Your task to perform on an android device: What is the news today? Image 0: 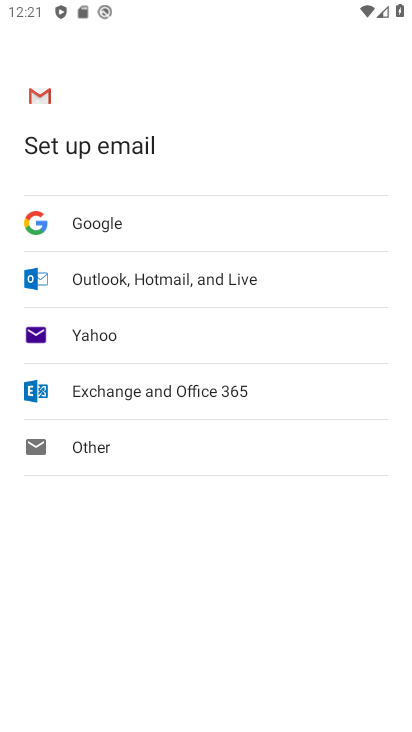
Step 0: press home button
Your task to perform on an android device: What is the news today? Image 1: 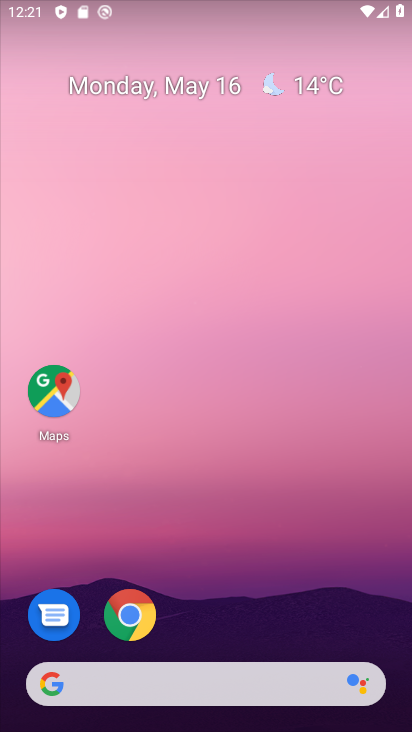
Step 1: drag from (323, 623) to (373, 131)
Your task to perform on an android device: What is the news today? Image 2: 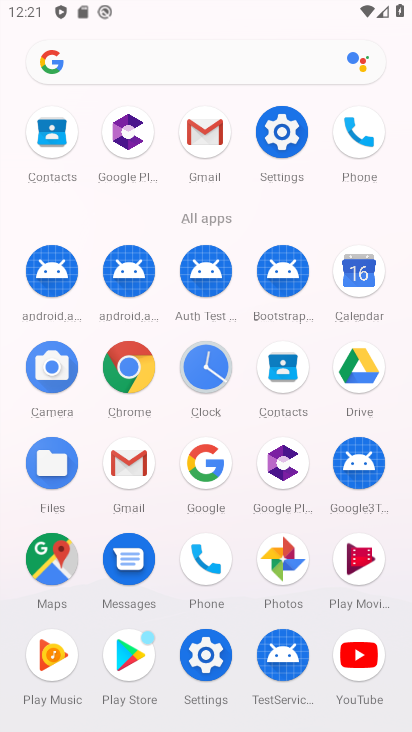
Step 2: click (135, 379)
Your task to perform on an android device: What is the news today? Image 3: 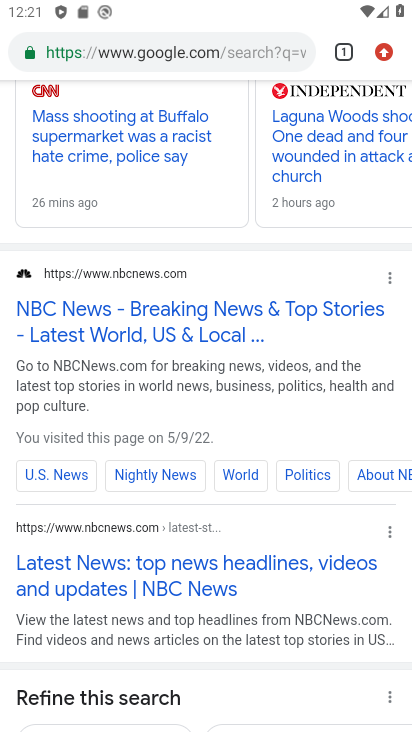
Step 3: click (137, 55)
Your task to perform on an android device: What is the news today? Image 4: 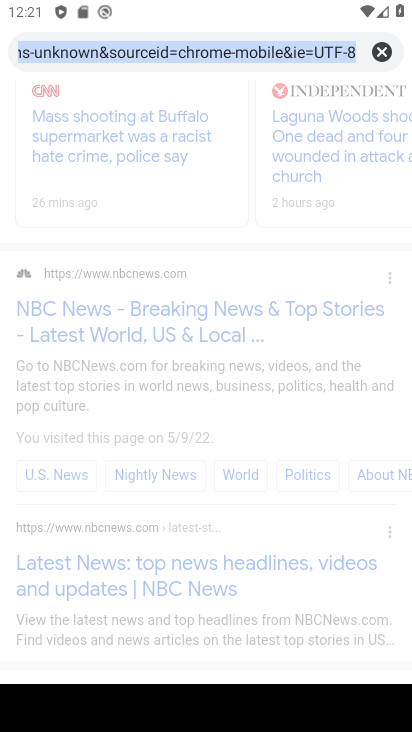
Step 4: click (380, 52)
Your task to perform on an android device: What is the news today? Image 5: 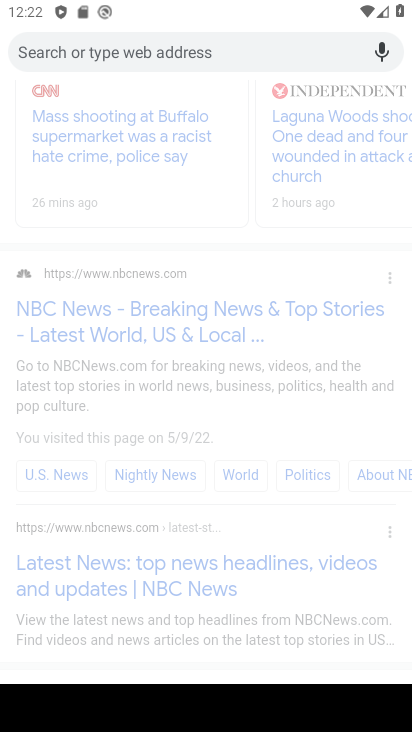
Step 5: type "what is the news today"
Your task to perform on an android device: What is the news today? Image 6: 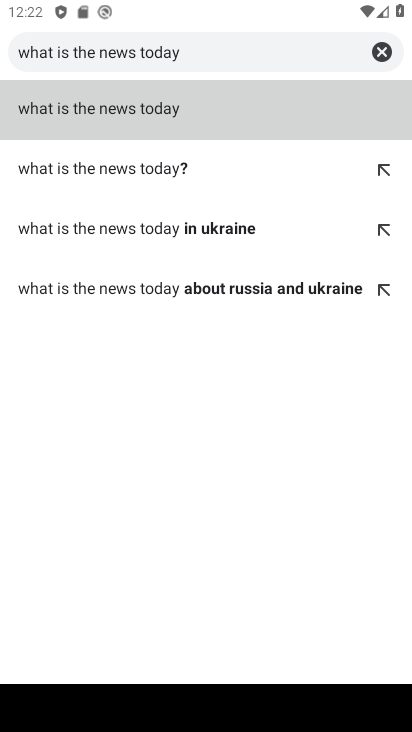
Step 6: click (54, 123)
Your task to perform on an android device: What is the news today? Image 7: 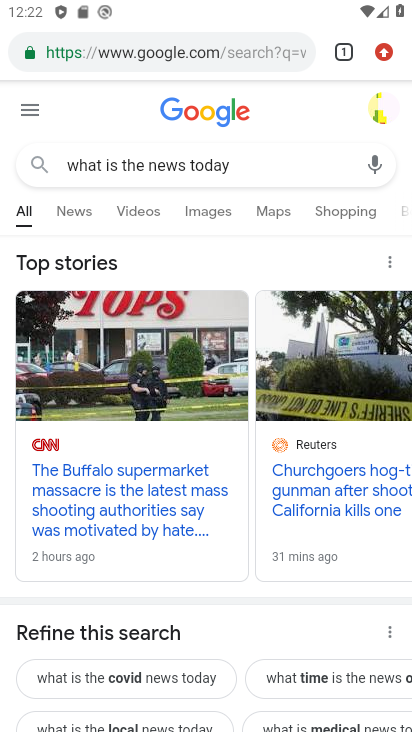
Step 7: task complete